Your task to perform on an android device: Show me productivity apps on the Play Store Image 0: 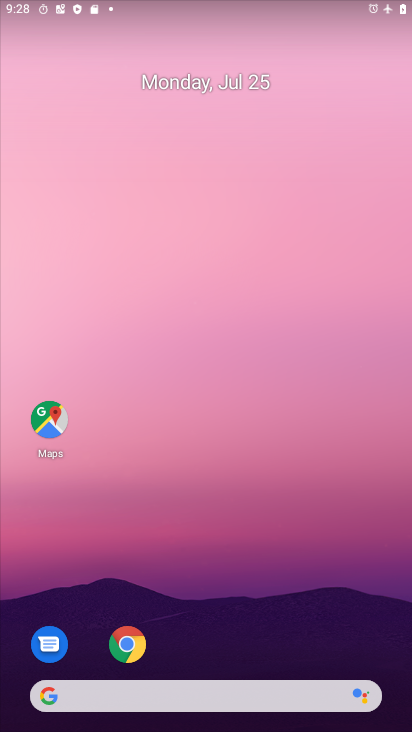
Step 0: drag from (271, 603) to (334, 124)
Your task to perform on an android device: Show me productivity apps on the Play Store Image 1: 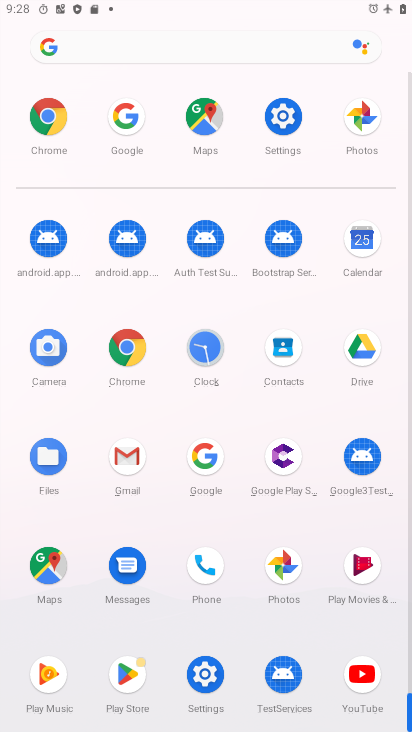
Step 1: click (139, 686)
Your task to perform on an android device: Show me productivity apps on the Play Store Image 2: 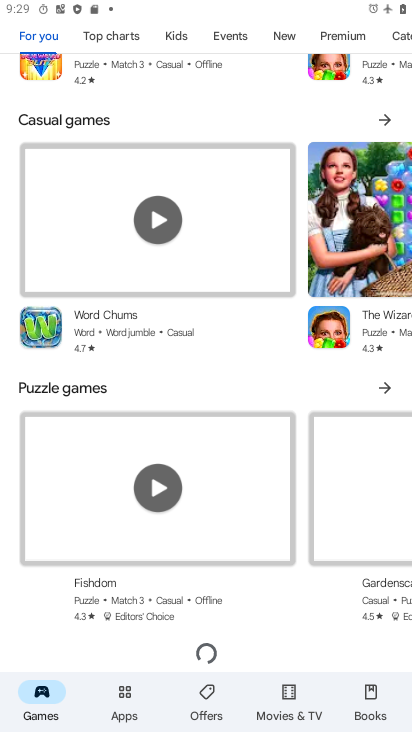
Step 2: task complete